Your task to perform on an android device: add a label to a message in the gmail app Image 0: 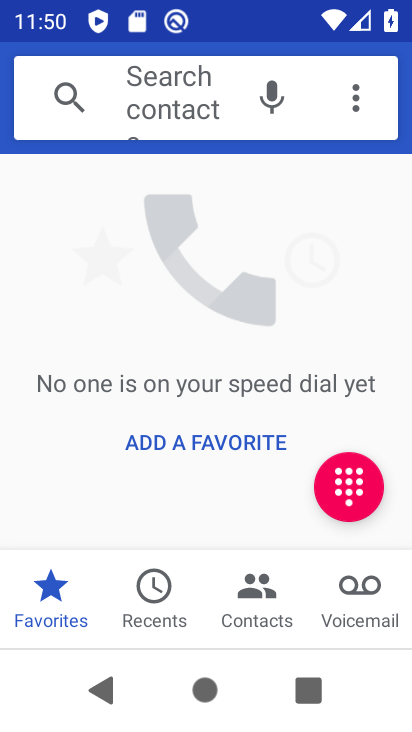
Step 0: press home button
Your task to perform on an android device: add a label to a message in the gmail app Image 1: 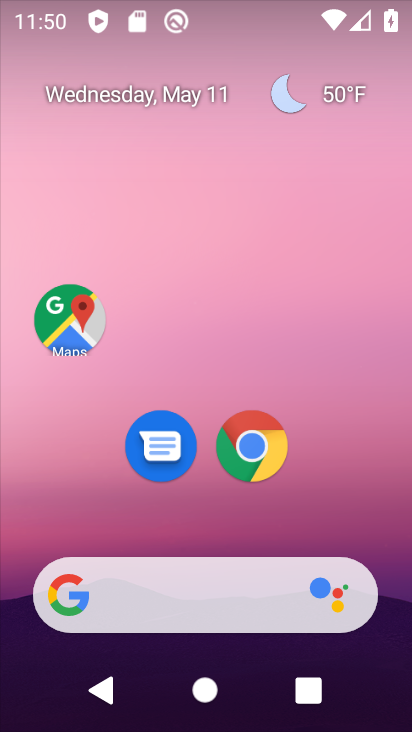
Step 1: drag from (319, 482) to (311, 297)
Your task to perform on an android device: add a label to a message in the gmail app Image 2: 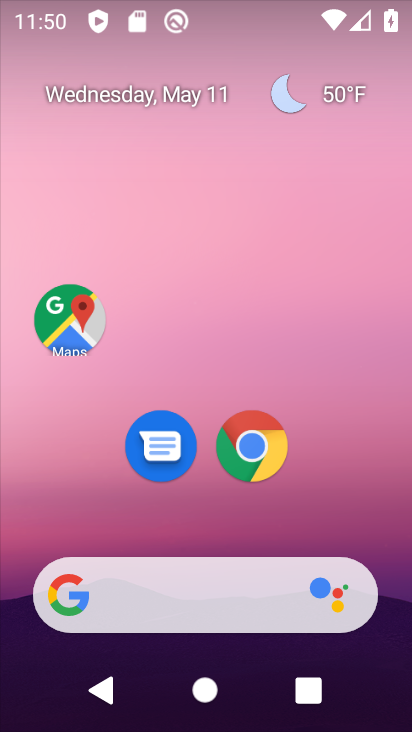
Step 2: drag from (295, 481) to (261, 211)
Your task to perform on an android device: add a label to a message in the gmail app Image 3: 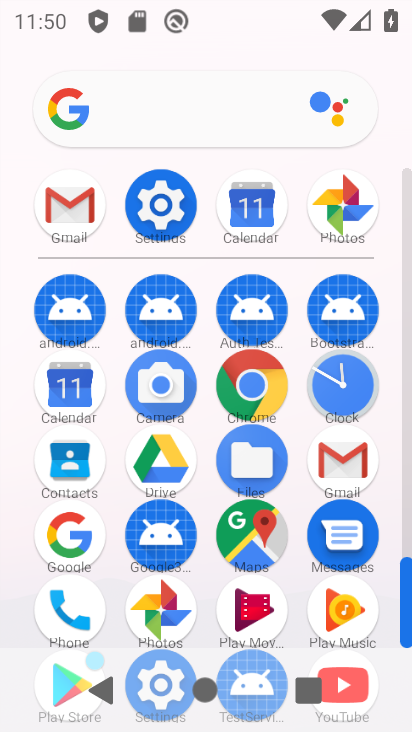
Step 3: click (75, 232)
Your task to perform on an android device: add a label to a message in the gmail app Image 4: 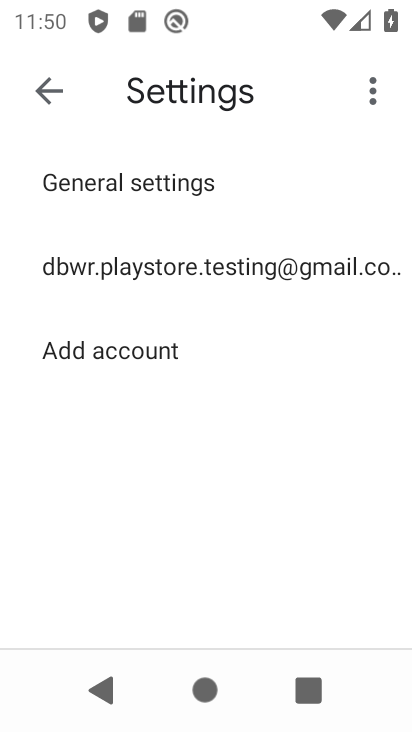
Step 4: press back button
Your task to perform on an android device: add a label to a message in the gmail app Image 5: 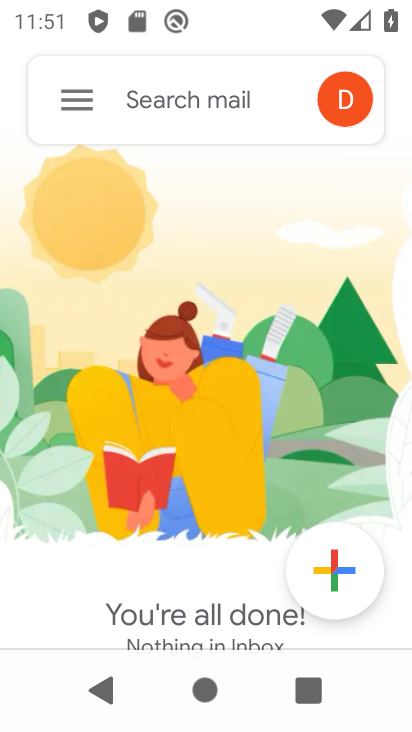
Step 5: click (71, 90)
Your task to perform on an android device: add a label to a message in the gmail app Image 6: 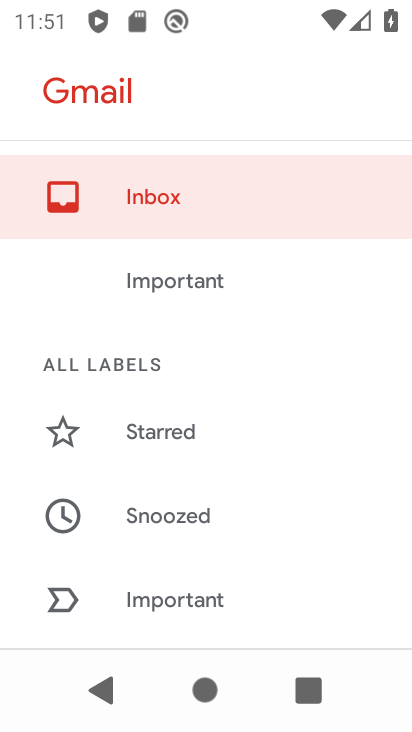
Step 6: drag from (264, 586) to (200, 270)
Your task to perform on an android device: add a label to a message in the gmail app Image 7: 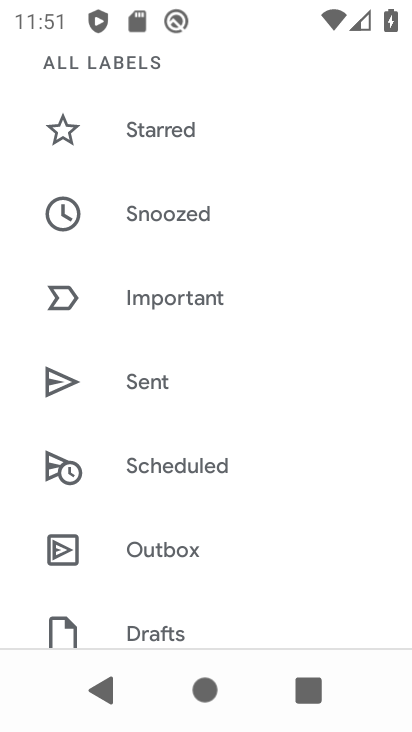
Step 7: drag from (281, 526) to (227, 252)
Your task to perform on an android device: add a label to a message in the gmail app Image 8: 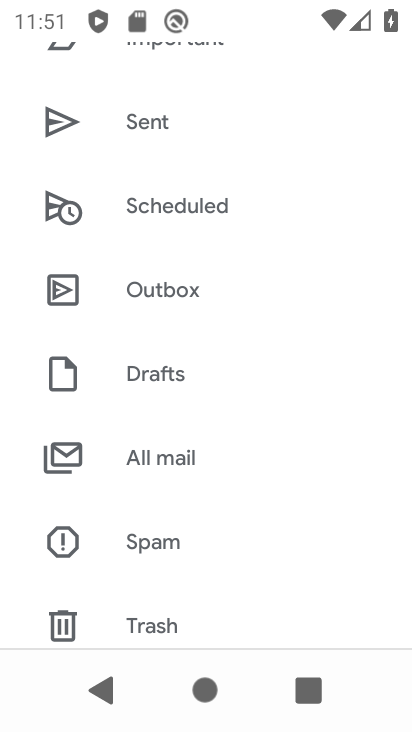
Step 8: click (178, 462)
Your task to perform on an android device: add a label to a message in the gmail app Image 9: 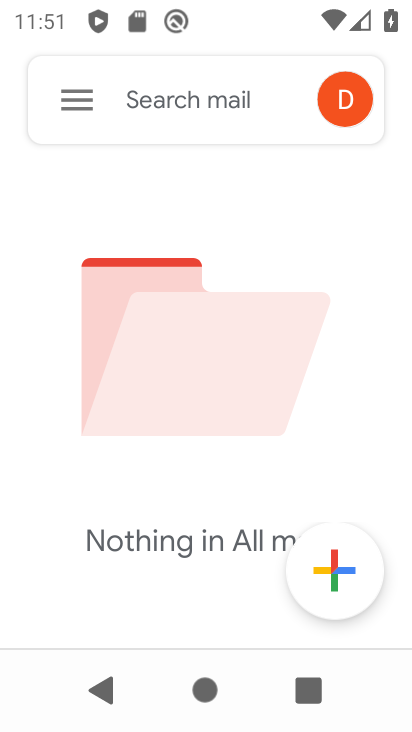
Step 9: task complete